Your task to perform on an android device: allow notifications from all sites in the chrome app Image 0: 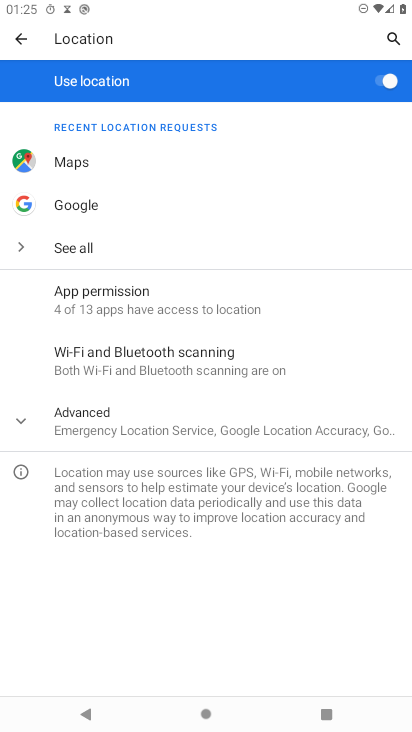
Step 0: press home button
Your task to perform on an android device: allow notifications from all sites in the chrome app Image 1: 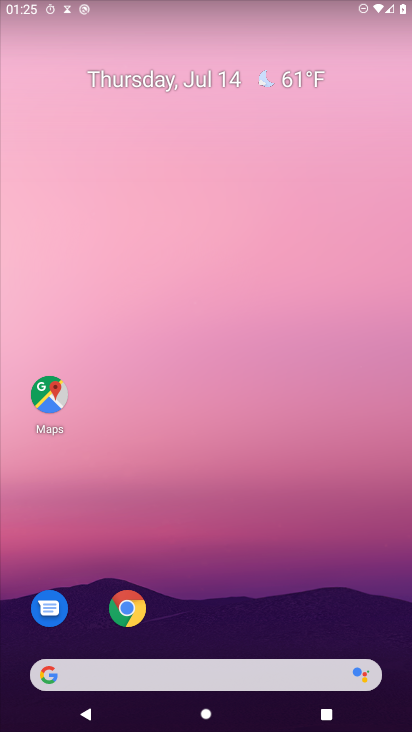
Step 1: click (118, 601)
Your task to perform on an android device: allow notifications from all sites in the chrome app Image 2: 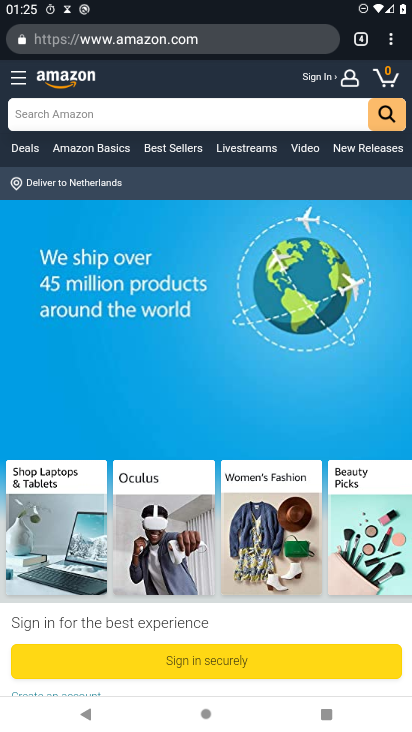
Step 2: drag from (394, 41) to (230, 471)
Your task to perform on an android device: allow notifications from all sites in the chrome app Image 3: 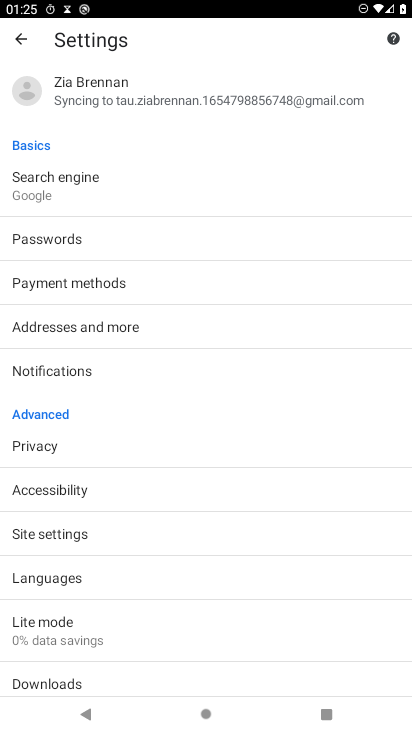
Step 3: click (30, 525)
Your task to perform on an android device: allow notifications from all sites in the chrome app Image 4: 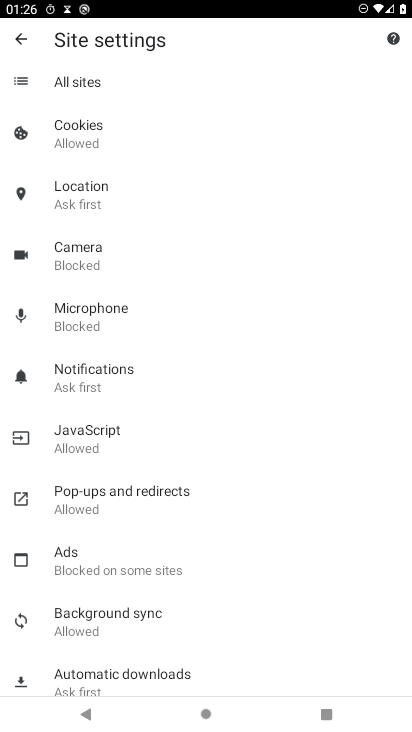
Step 4: click (90, 375)
Your task to perform on an android device: allow notifications from all sites in the chrome app Image 5: 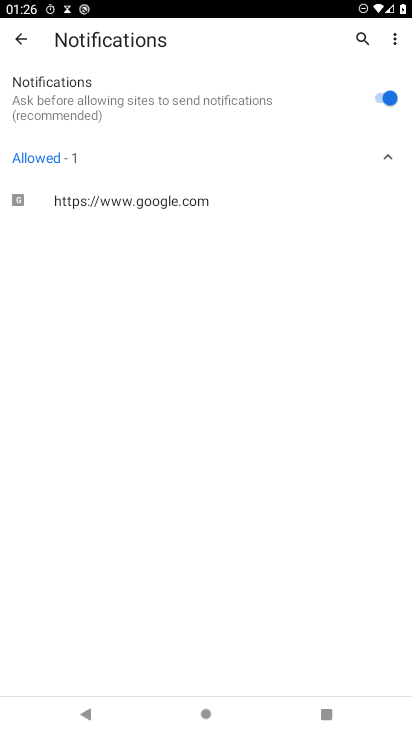
Step 5: task complete